Your task to perform on an android device: Open settings Image 0: 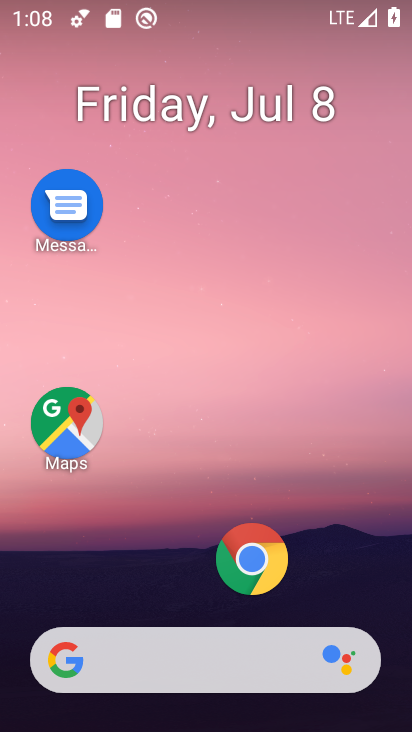
Step 0: drag from (174, 621) to (109, 174)
Your task to perform on an android device: Open settings Image 1: 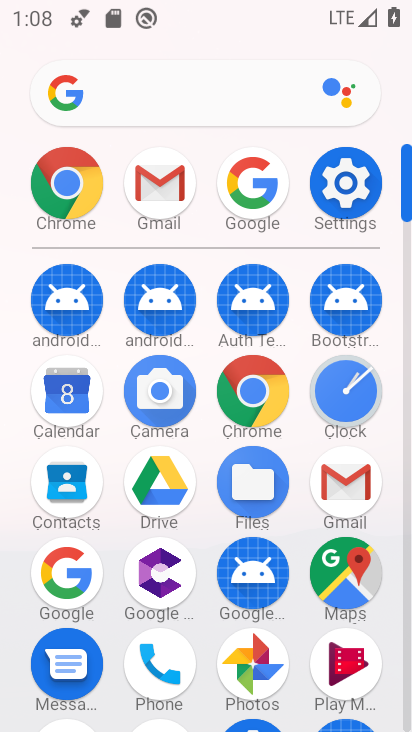
Step 1: click (335, 173)
Your task to perform on an android device: Open settings Image 2: 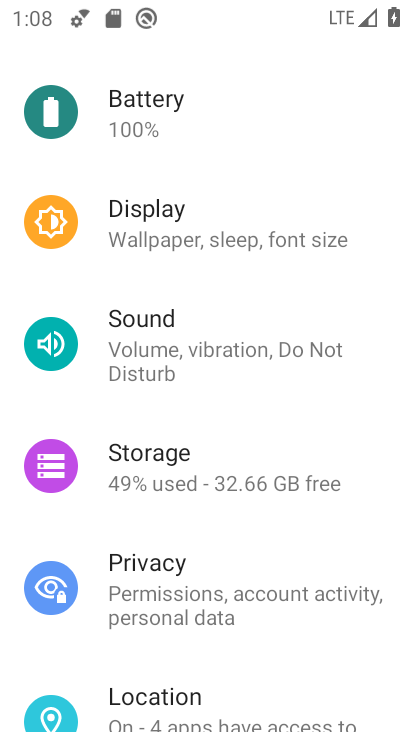
Step 2: task complete